Your task to perform on an android device: turn on sleep mode Image 0: 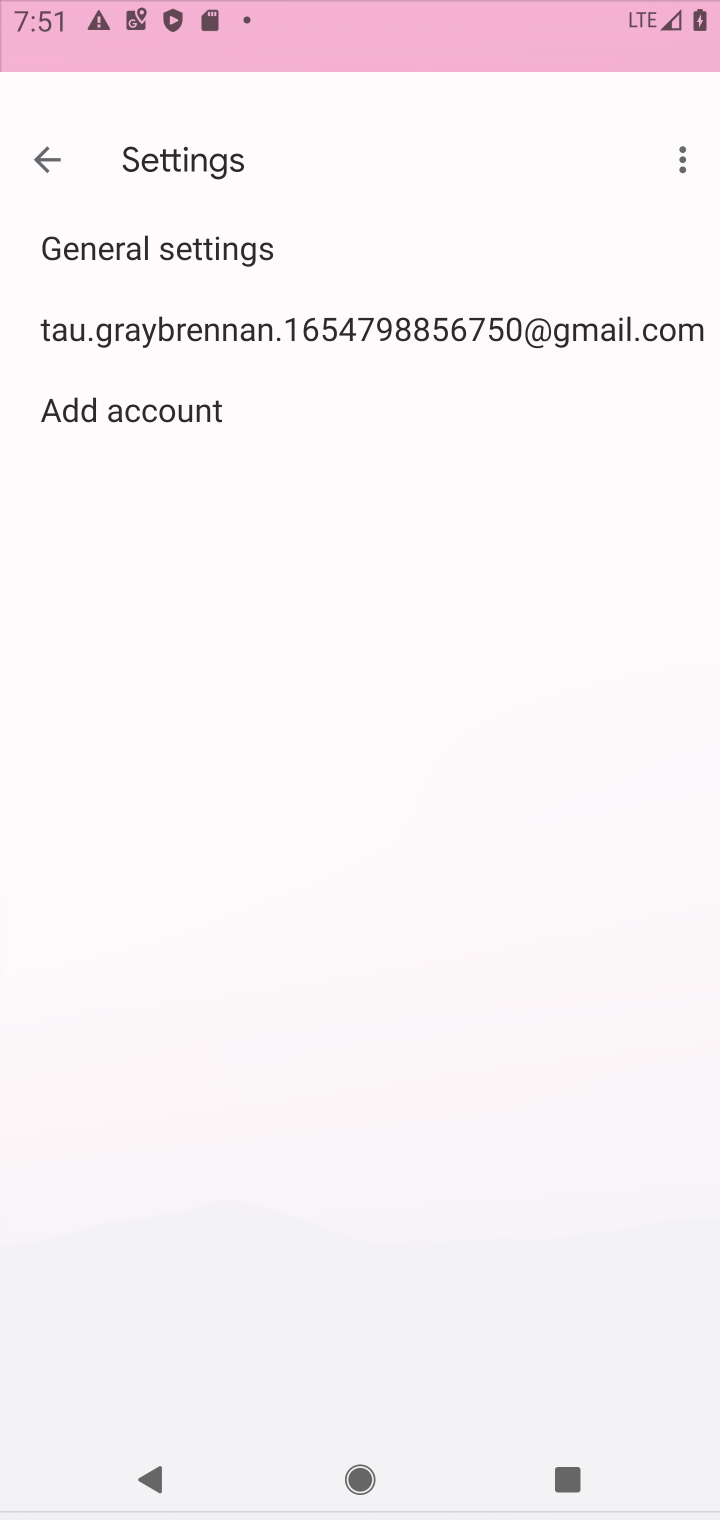
Step 0: press home button
Your task to perform on an android device: turn on sleep mode Image 1: 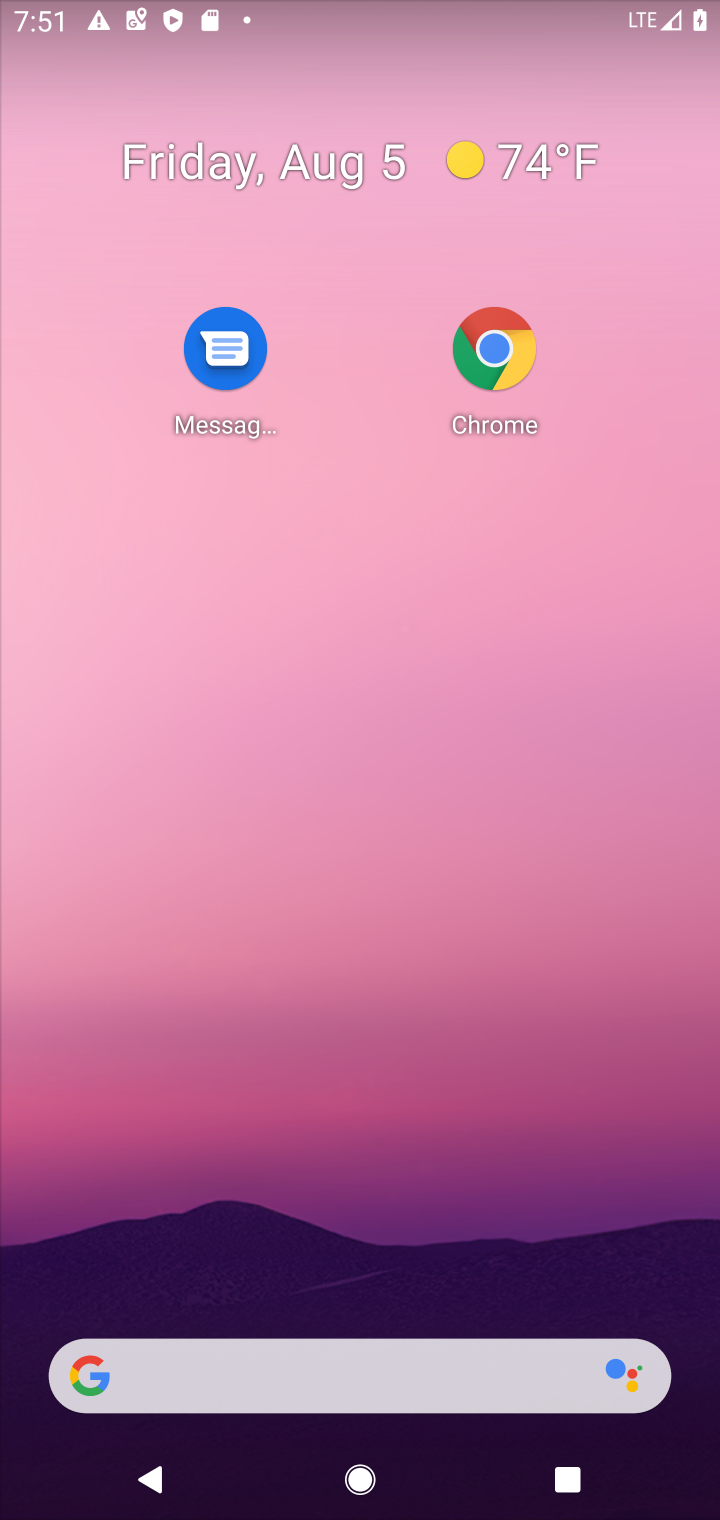
Step 1: drag from (502, 1406) to (510, 304)
Your task to perform on an android device: turn on sleep mode Image 2: 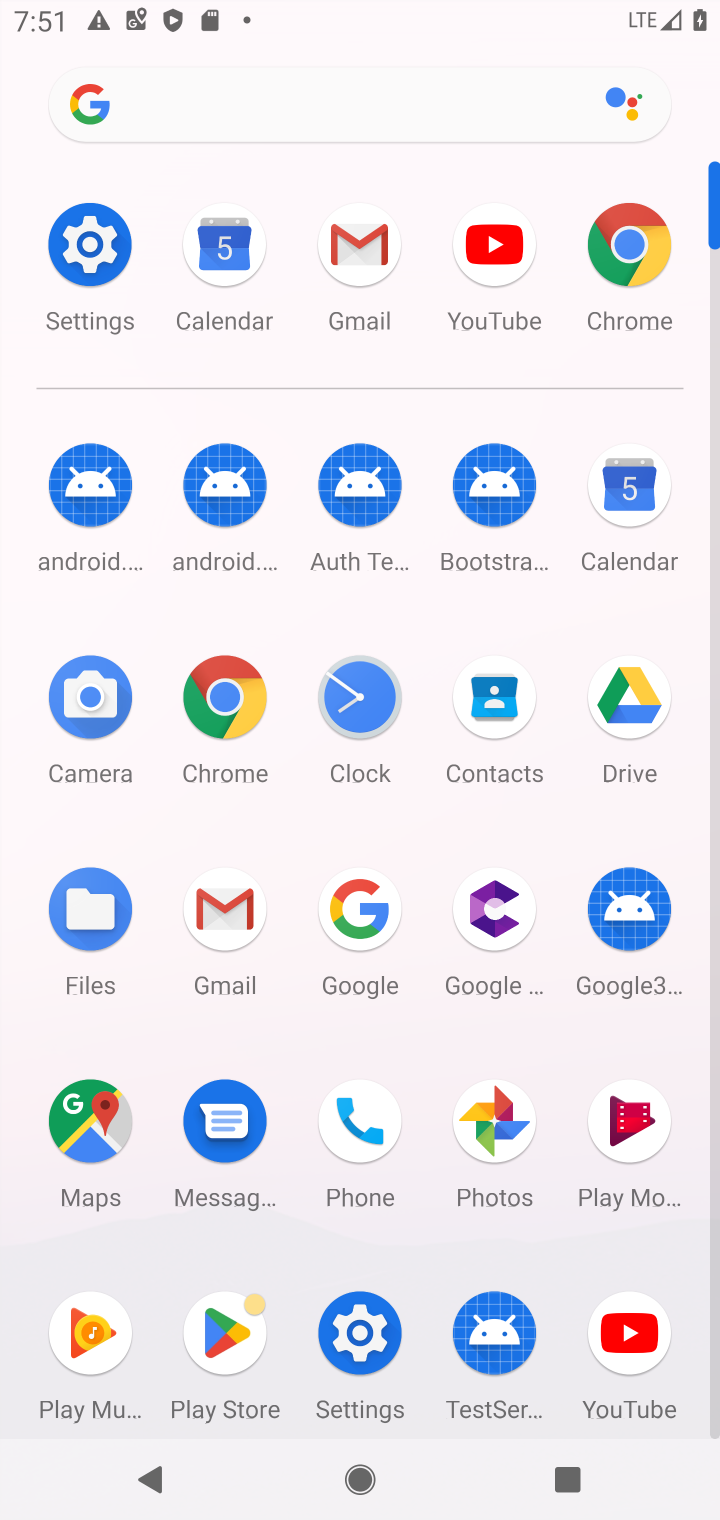
Step 2: click (78, 256)
Your task to perform on an android device: turn on sleep mode Image 3: 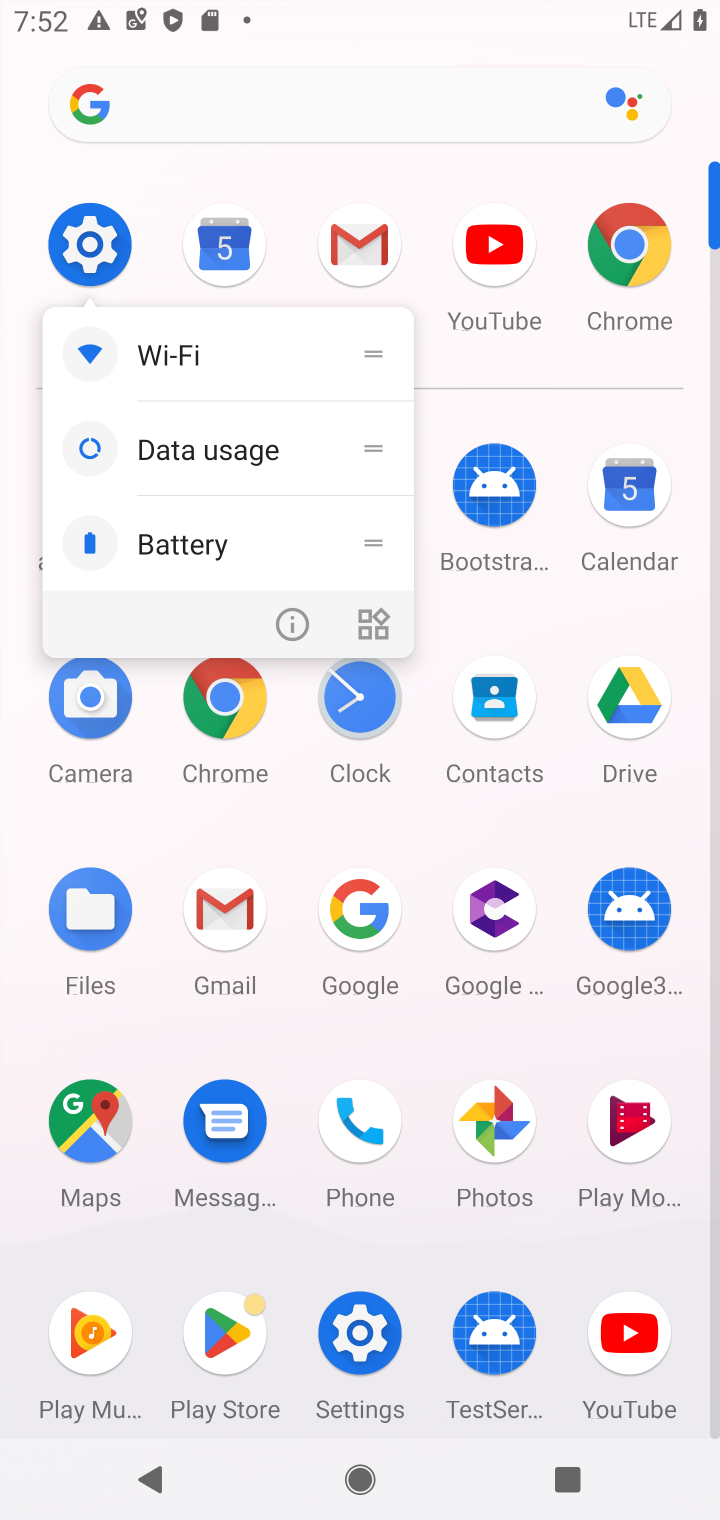
Step 3: click (100, 233)
Your task to perform on an android device: turn on sleep mode Image 4: 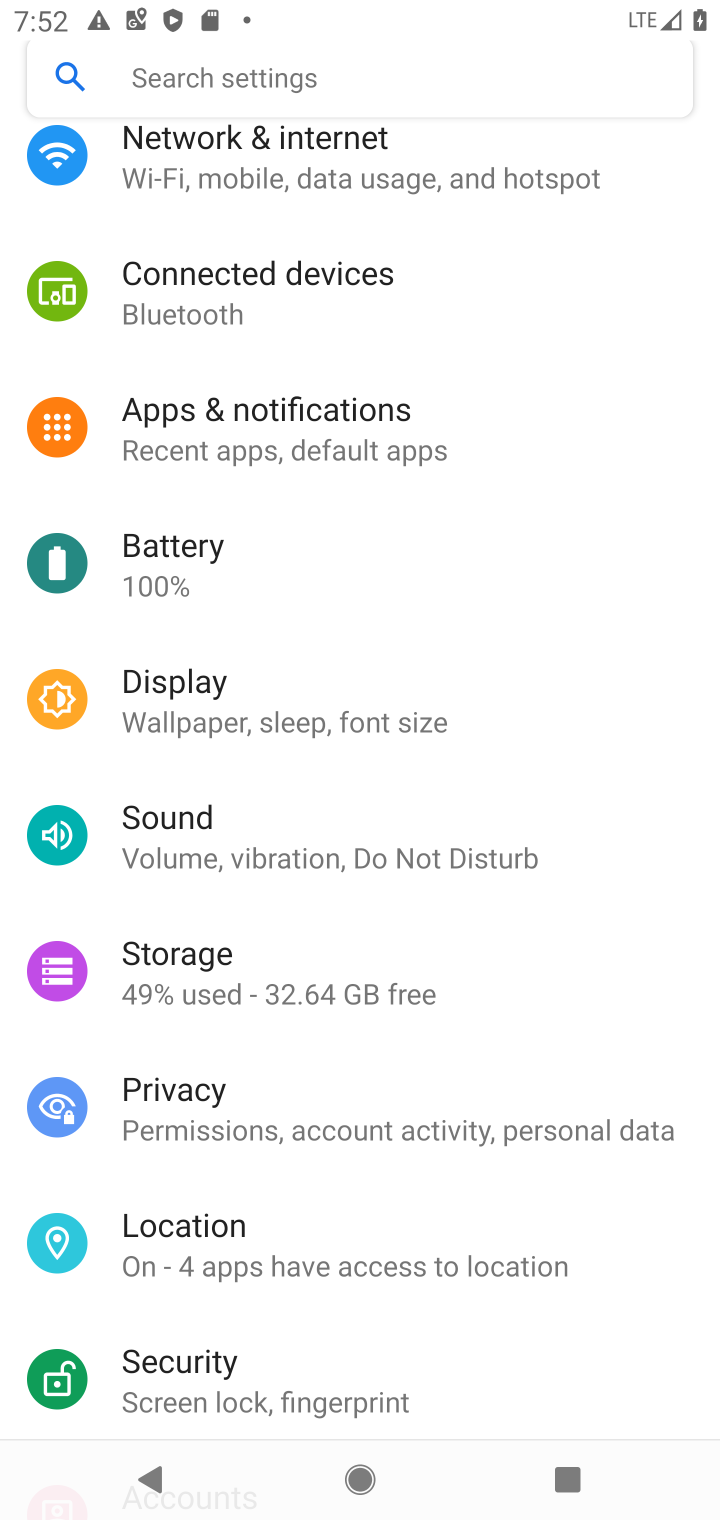
Step 4: click (95, 242)
Your task to perform on an android device: turn on sleep mode Image 5: 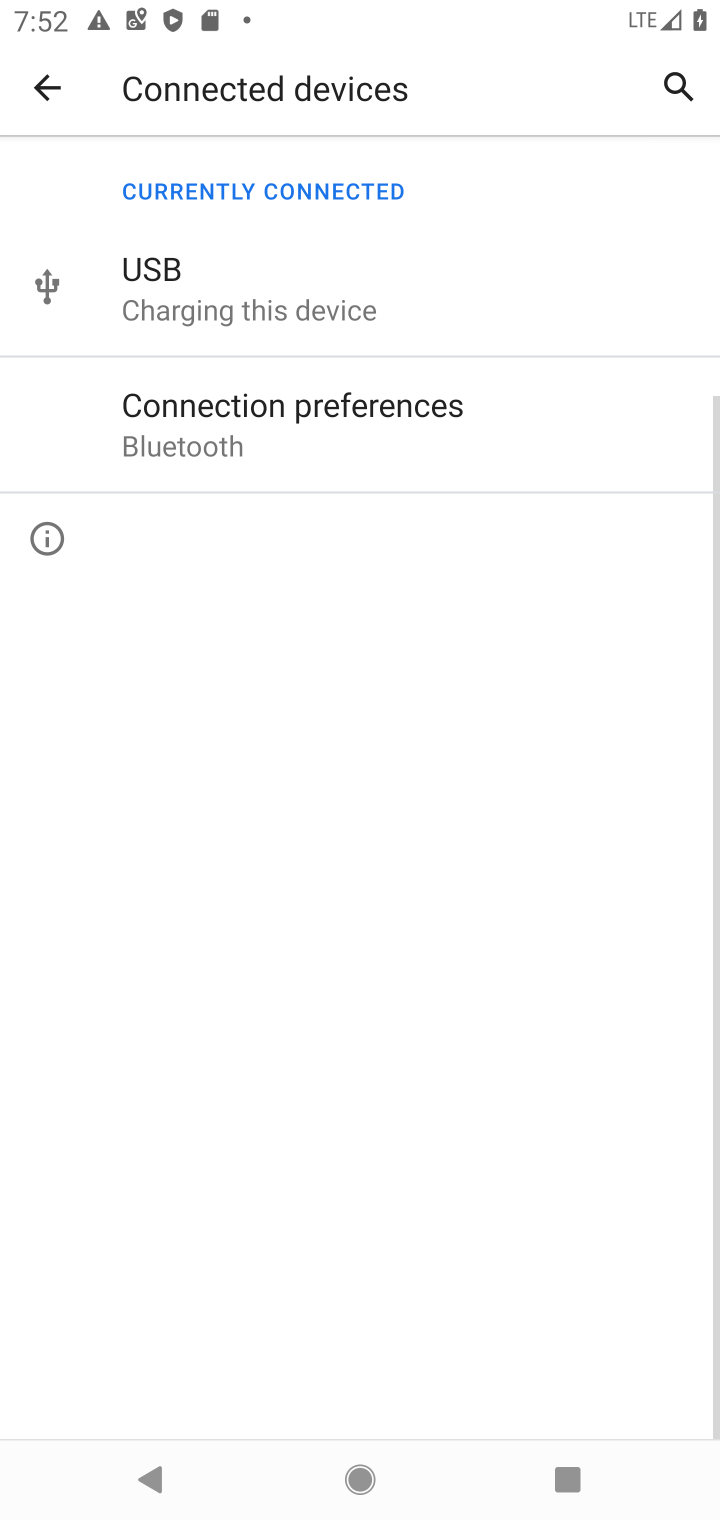
Step 5: click (48, 82)
Your task to perform on an android device: turn on sleep mode Image 6: 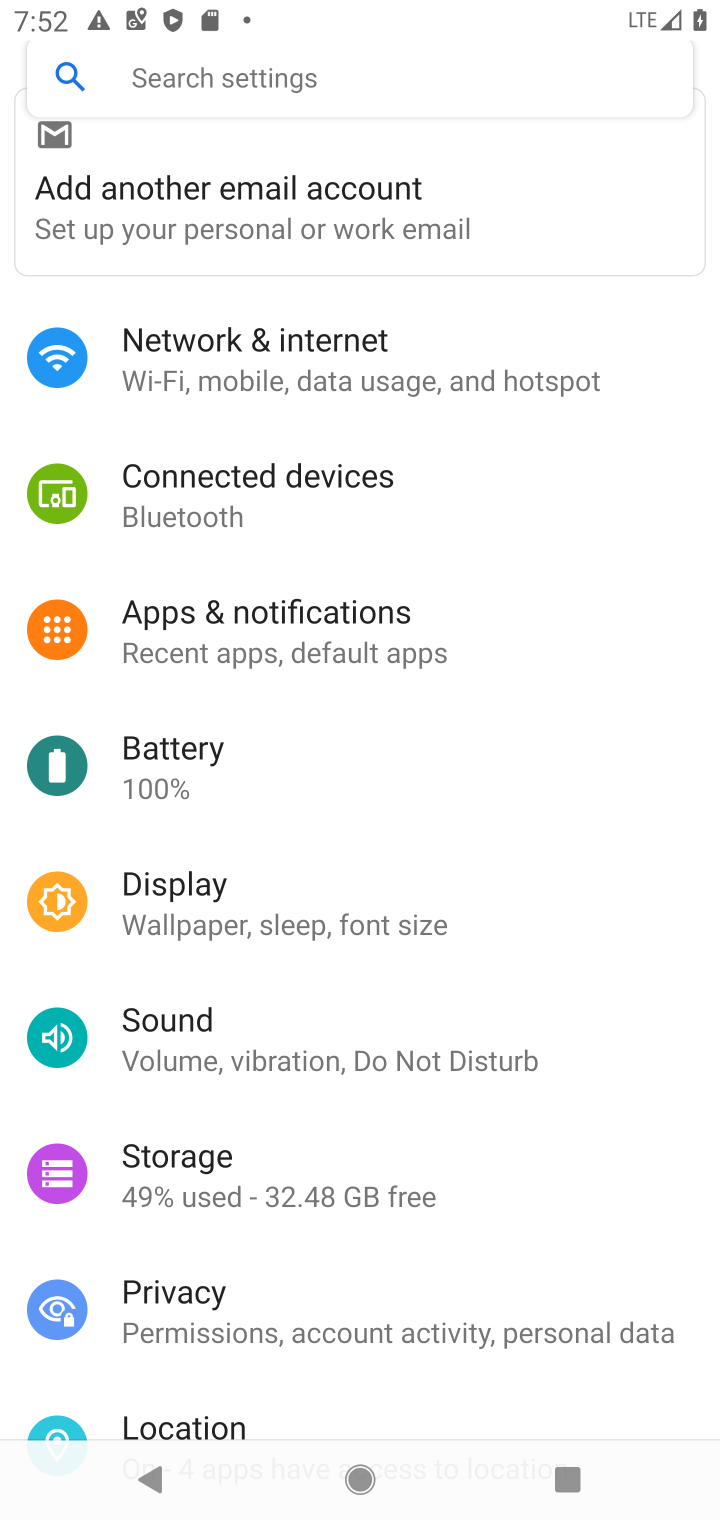
Step 6: click (284, 78)
Your task to perform on an android device: turn on sleep mode Image 7: 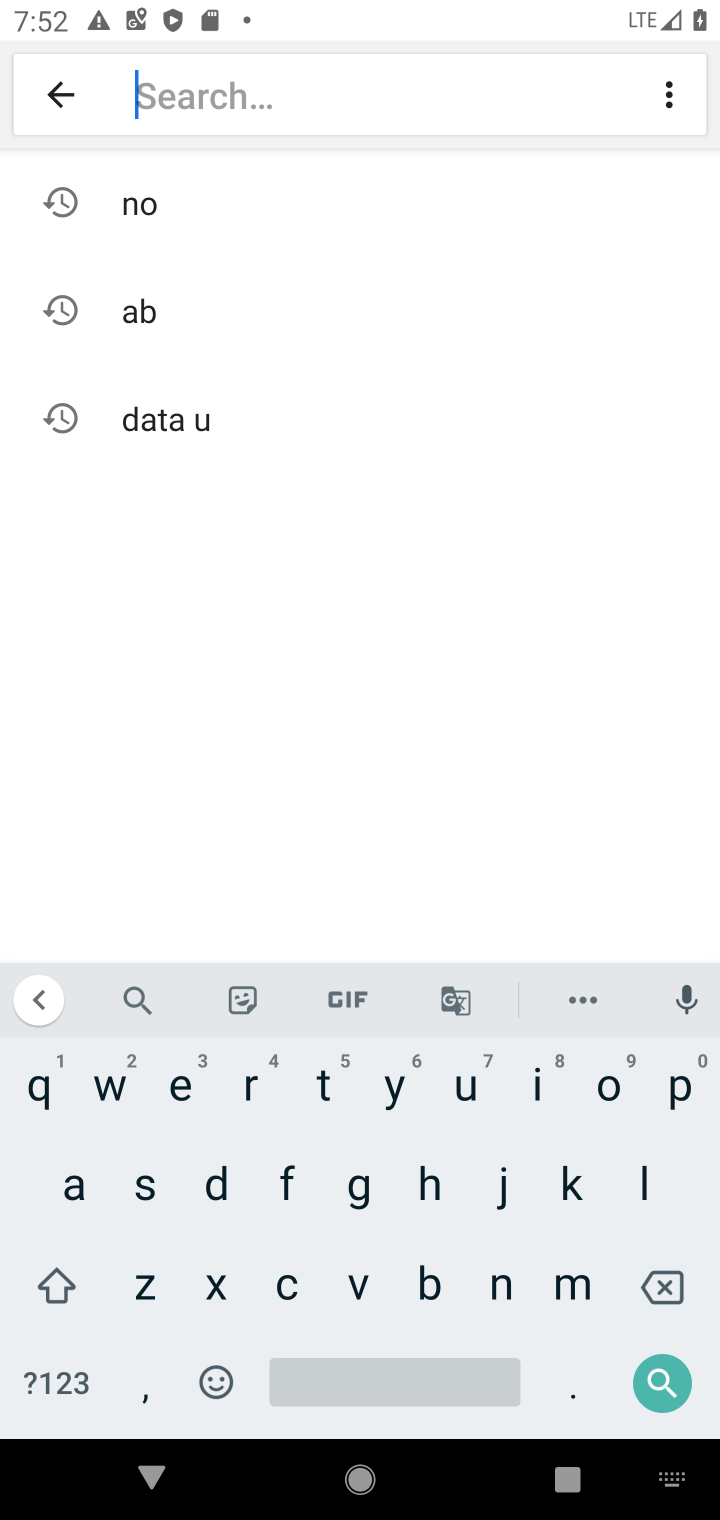
Step 7: click (146, 1198)
Your task to perform on an android device: turn on sleep mode Image 8: 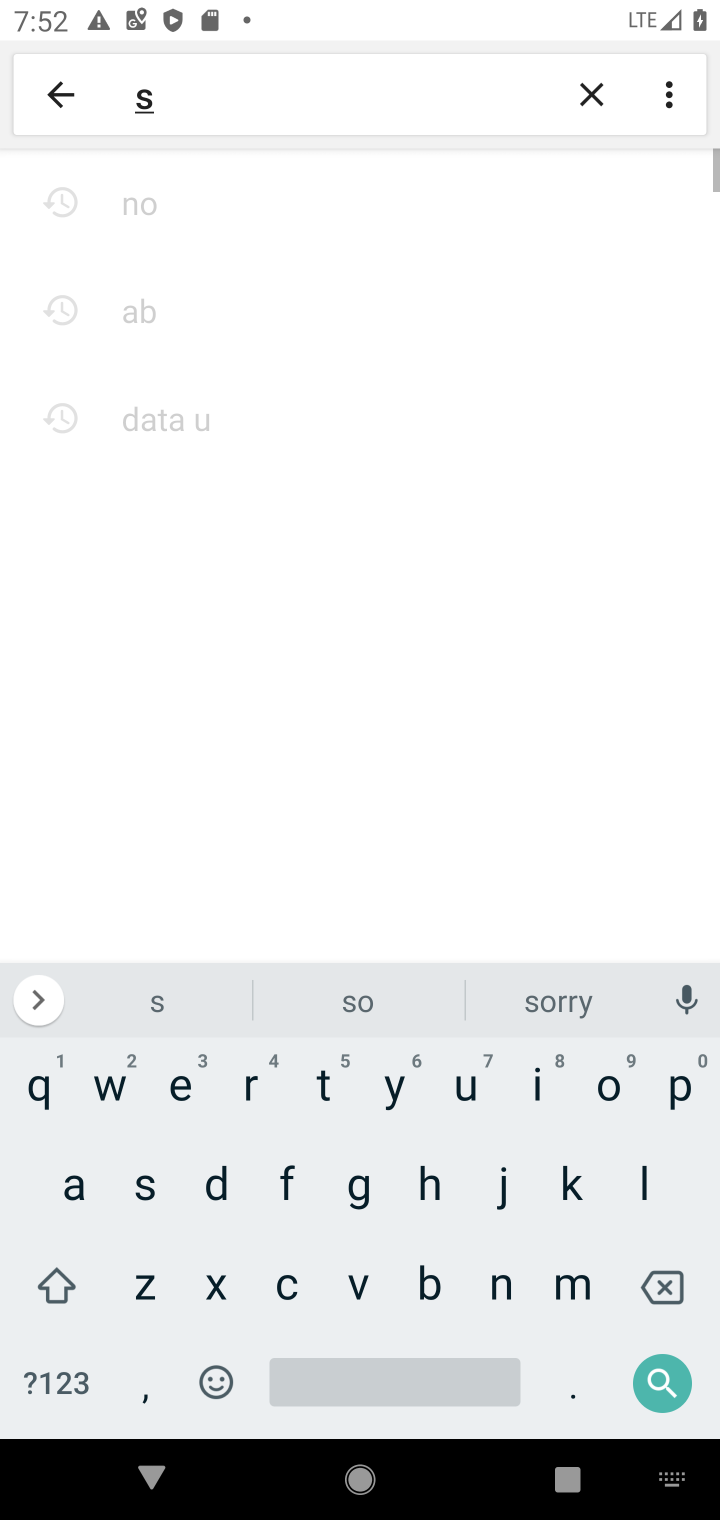
Step 8: click (643, 1184)
Your task to perform on an android device: turn on sleep mode Image 9: 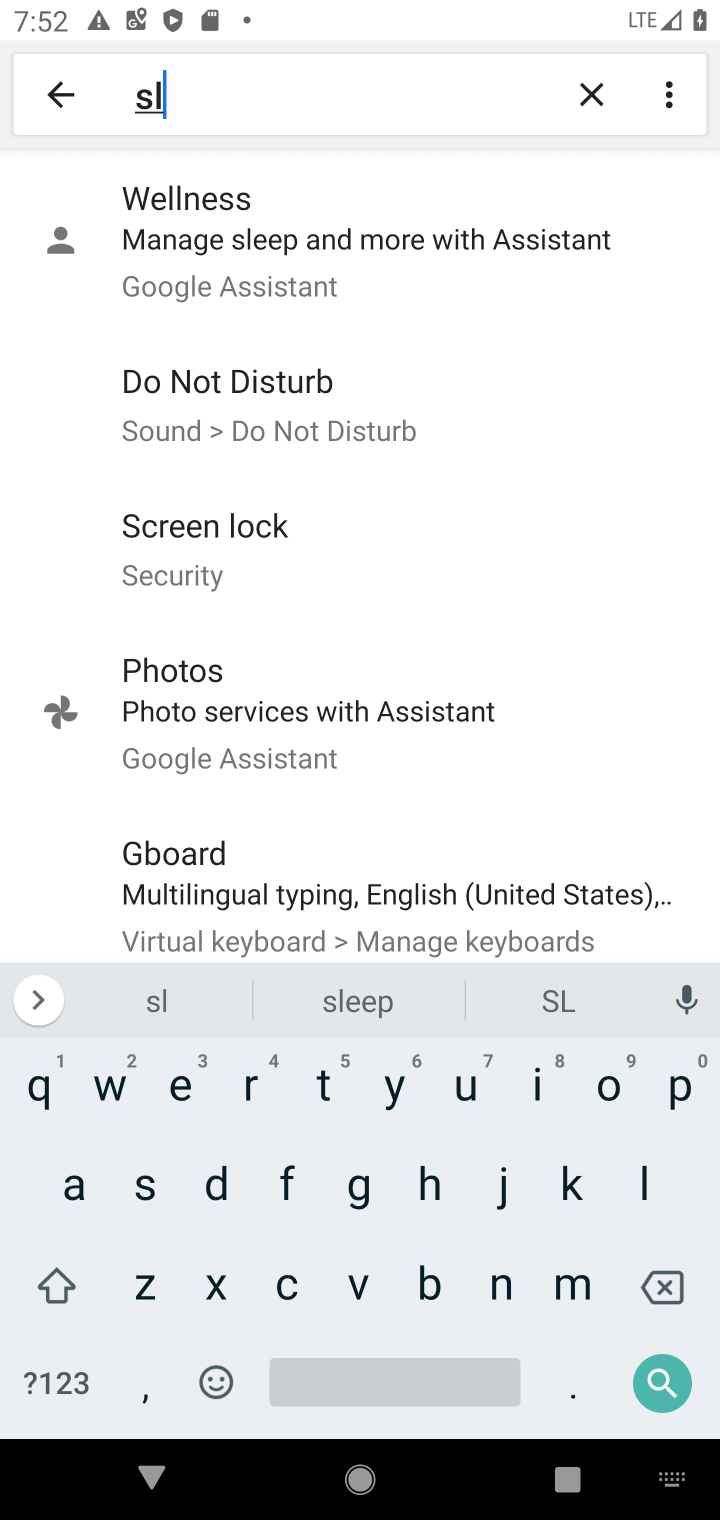
Step 9: click (205, 380)
Your task to perform on an android device: turn on sleep mode Image 10: 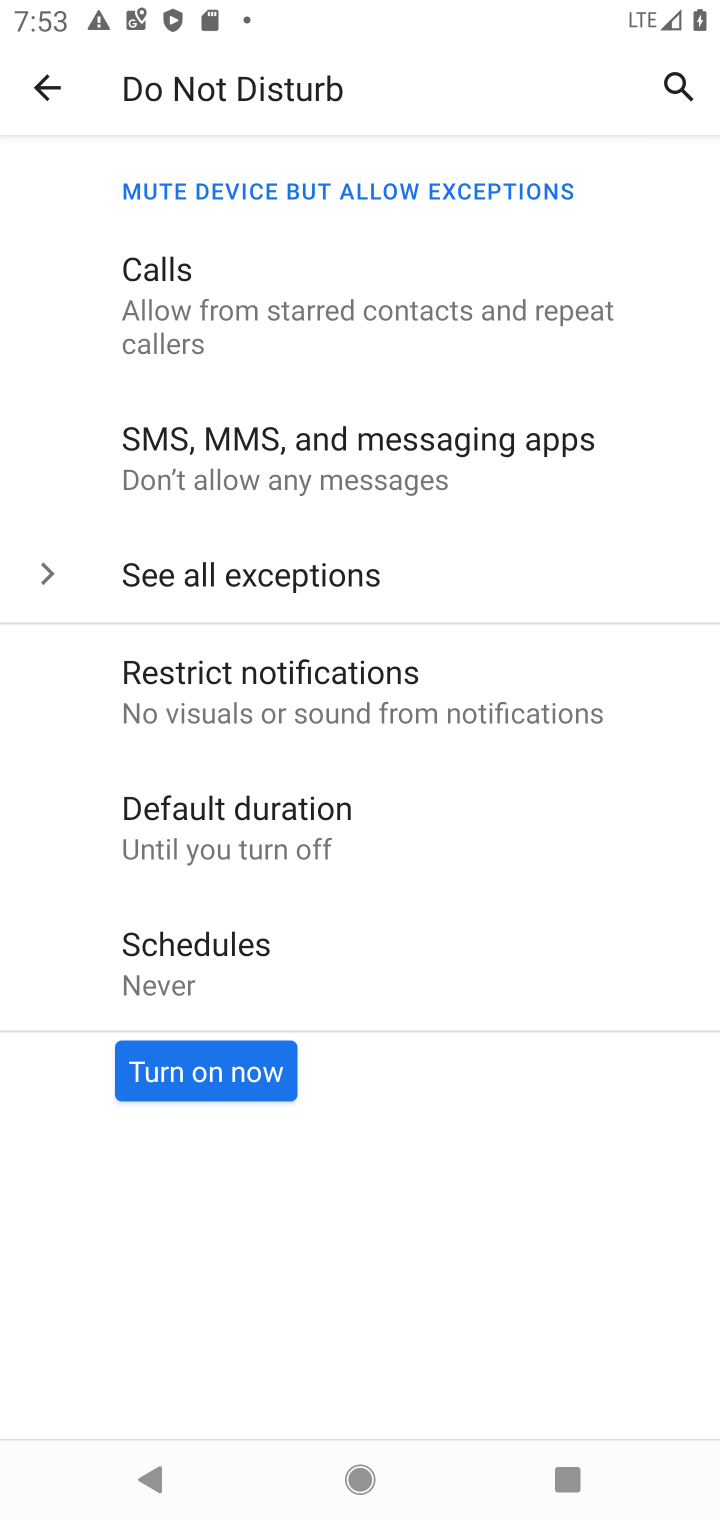
Step 10: click (150, 1088)
Your task to perform on an android device: turn on sleep mode Image 11: 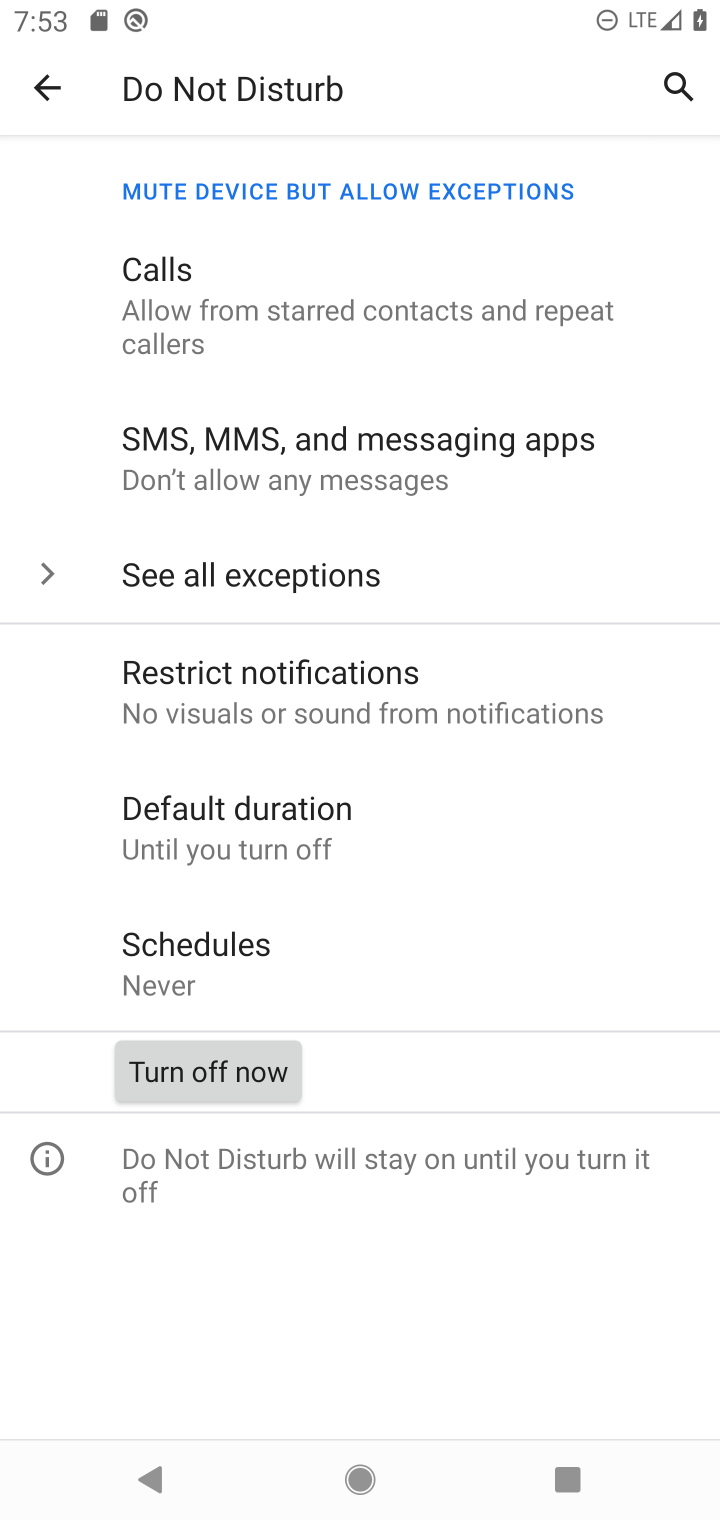
Step 11: task complete